Your task to perform on an android device: toggle airplane mode Image 0: 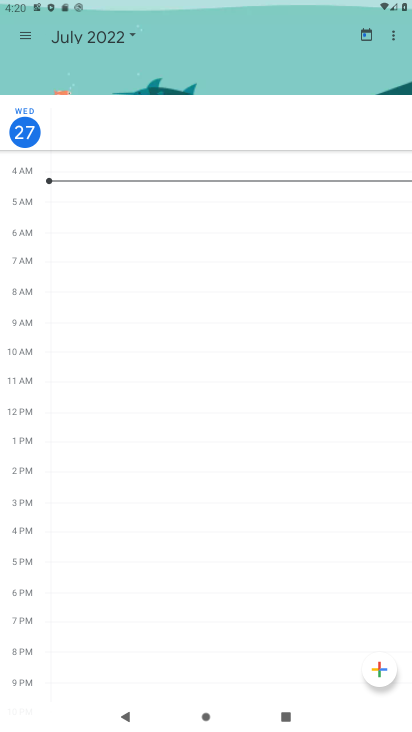
Step 0: press home button
Your task to perform on an android device: toggle airplane mode Image 1: 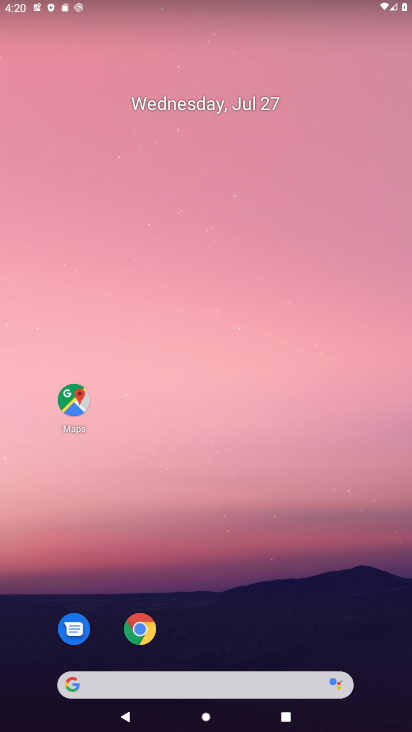
Step 1: drag from (222, 678) to (191, 138)
Your task to perform on an android device: toggle airplane mode Image 2: 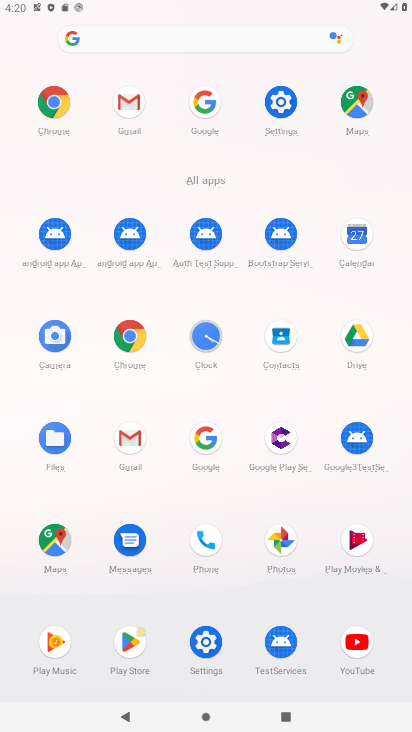
Step 2: click (277, 78)
Your task to perform on an android device: toggle airplane mode Image 3: 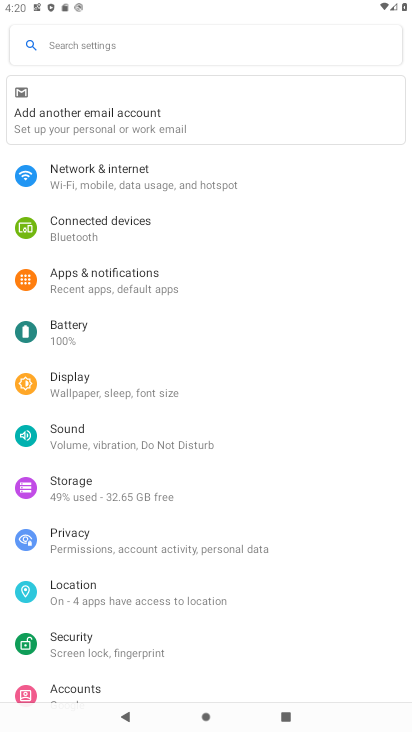
Step 3: click (113, 180)
Your task to perform on an android device: toggle airplane mode Image 4: 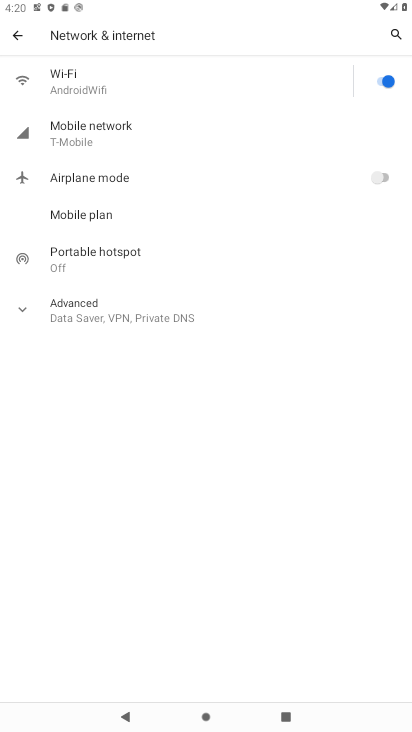
Step 4: click (120, 178)
Your task to perform on an android device: toggle airplane mode Image 5: 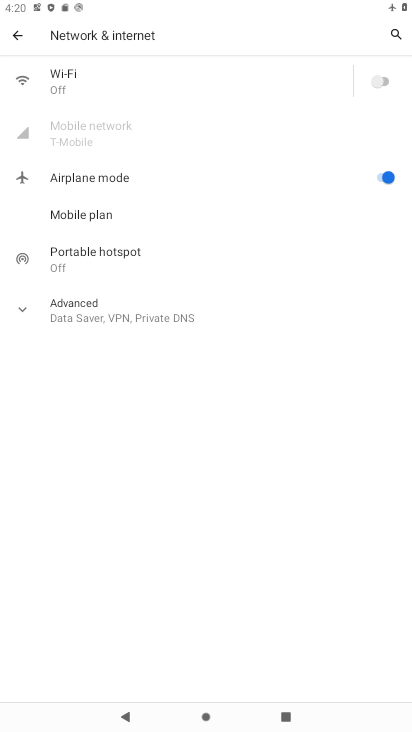
Step 5: task complete